Your task to perform on an android device: change notifications settings Image 0: 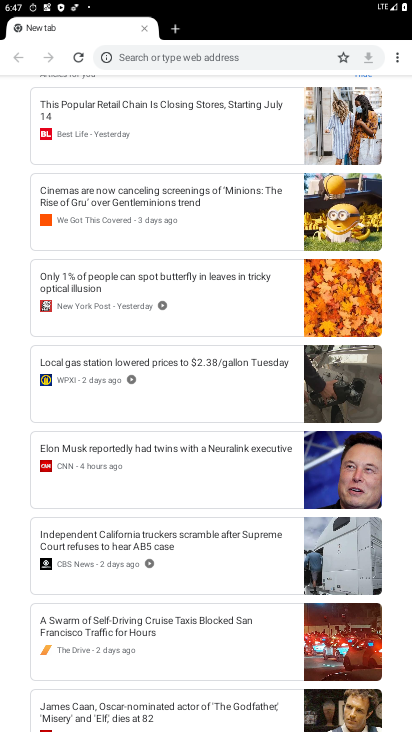
Step 0: press home button
Your task to perform on an android device: change notifications settings Image 1: 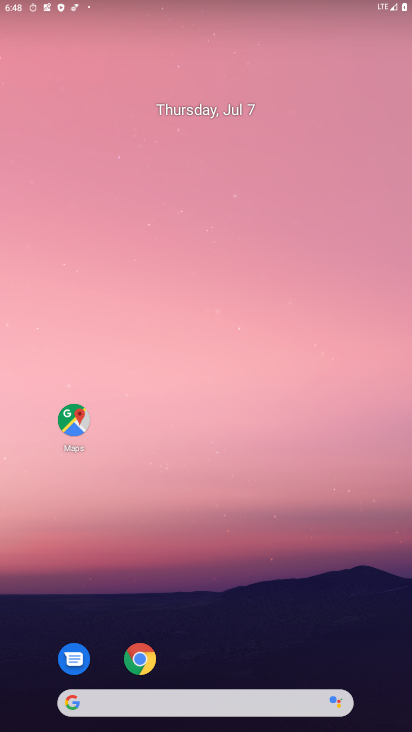
Step 1: drag from (338, 660) to (269, 24)
Your task to perform on an android device: change notifications settings Image 2: 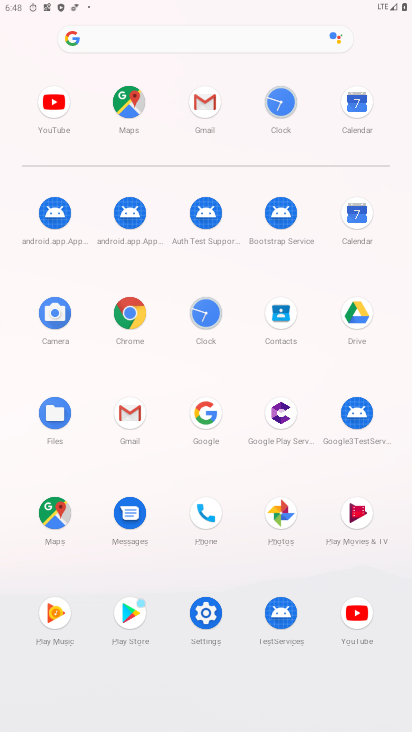
Step 2: click (207, 621)
Your task to perform on an android device: change notifications settings Image 3: 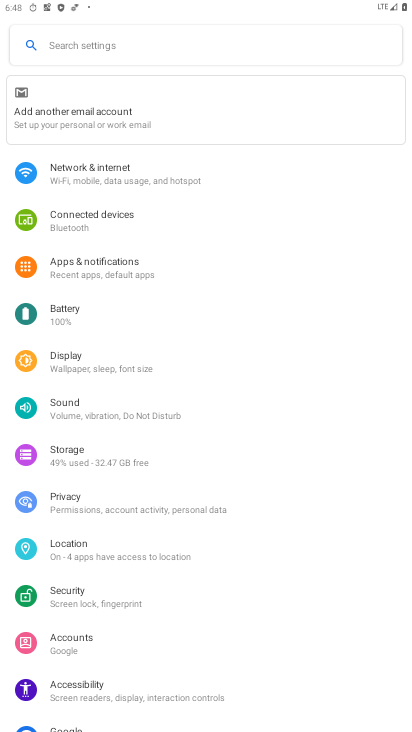
Step 3: click (133, 275)
Your task to perform on an android device: change notifications settings Image 4: 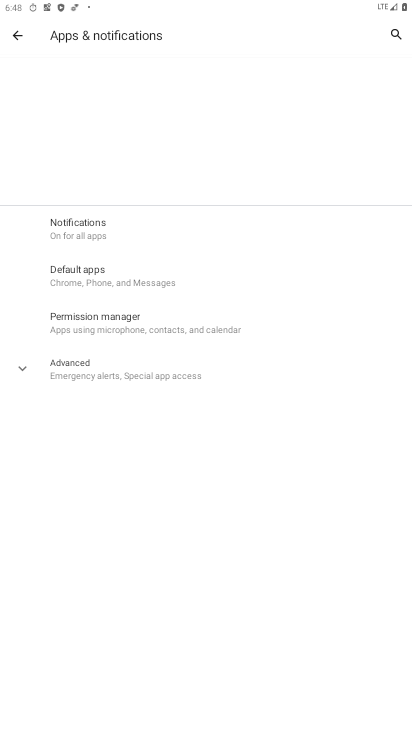
Step 4: click (81, 241)
Your task to perform on an android device: change notifications settings Image 5: 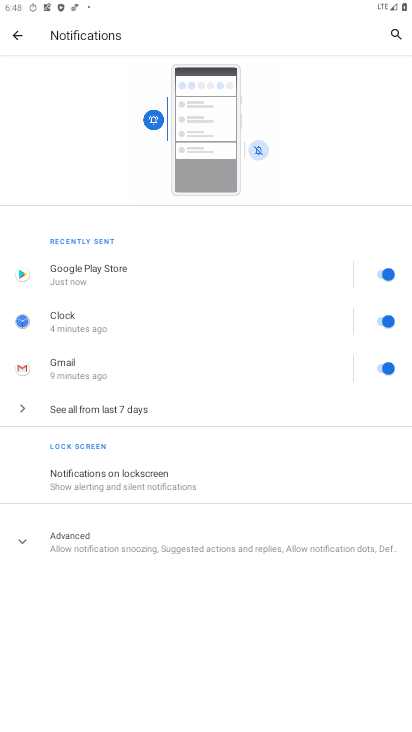
Step 5: task complete